Your task to perform on an android device: Go to battery settings Image 0: 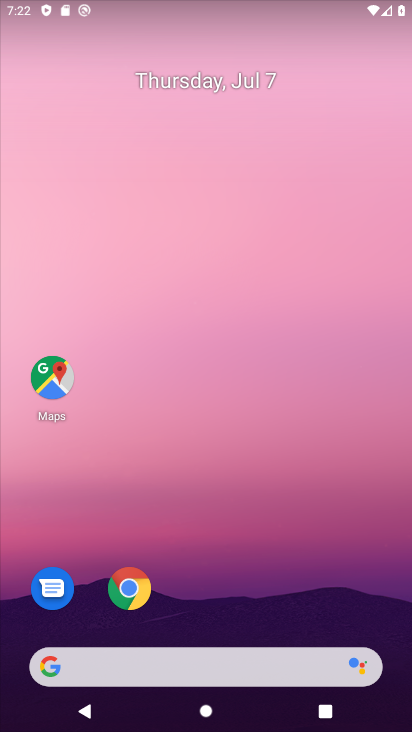
Step 0: drag from (231, 590) to (233, 84)
Your task to perform on an android device: Go to battery settings Image 1: 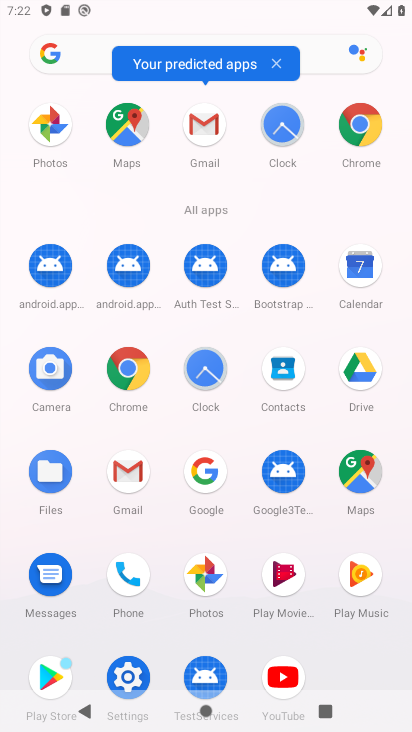
Step 1: click (117, 674)
Your task to perform on an android device: Go to battery settings Image 2: 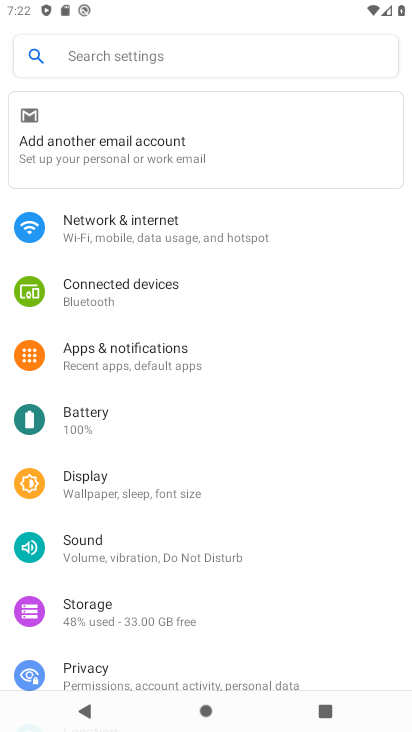
Step 2: click (120, 429)
Your task to perform on an android device: Go to battery settings Image 3: 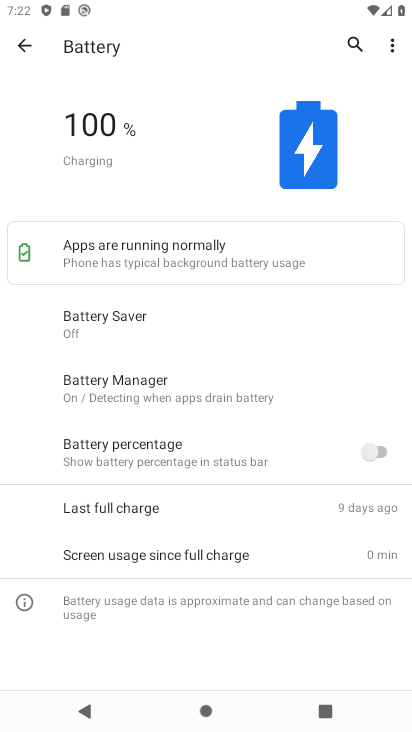
Step 3: task complete